Your task to perform on an android device: Open privacy settings Image 0: 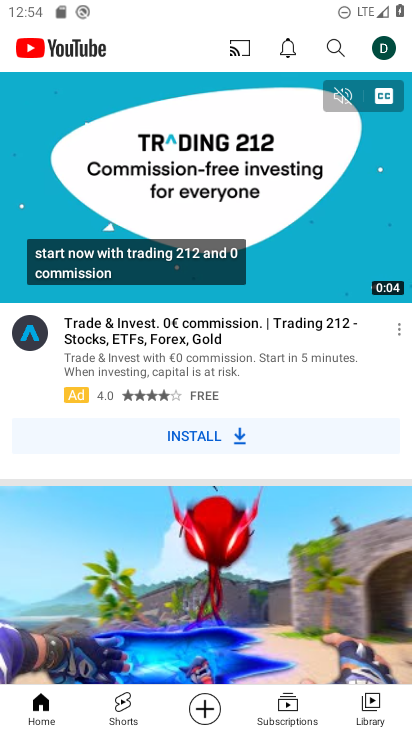
Step 0: press home button
Your task to perform on an android device: Open privacy settings Image 1: 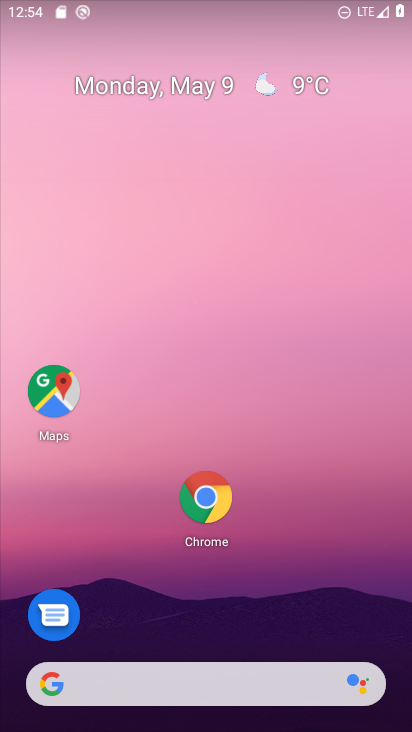
Step 1: drag from (292, 552) to (352, 36)
Your task to perform on an android device: Open privacy settings Image 2: 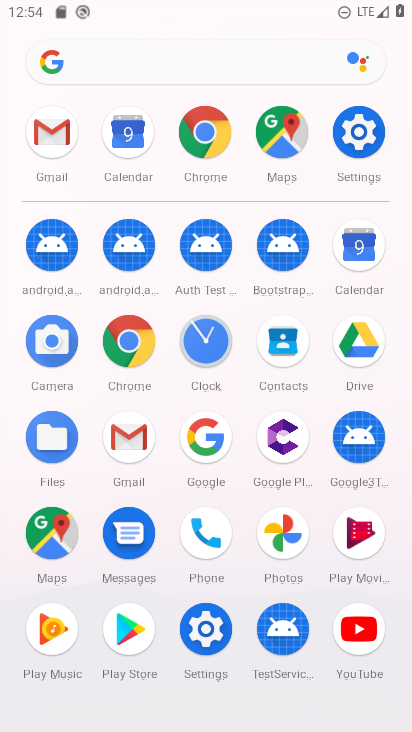
Step 2: click (373, 149)
Your task to perform on an android device: Open privacy settings Image 3: 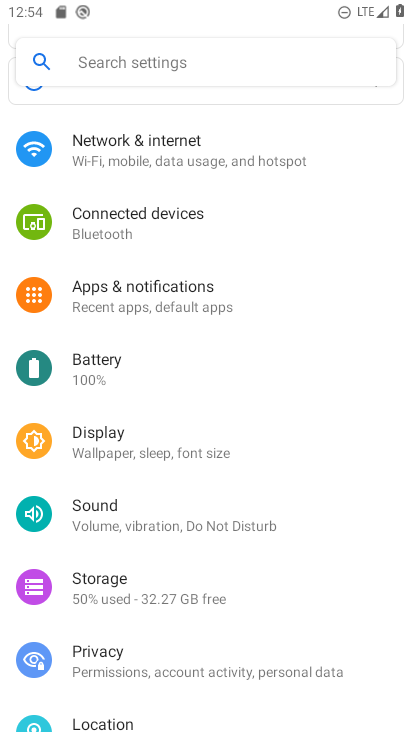
Step 3: drag from (153, 645) to (214, 269)
Your task to perform on an android device: Open privacy settings Image 4: 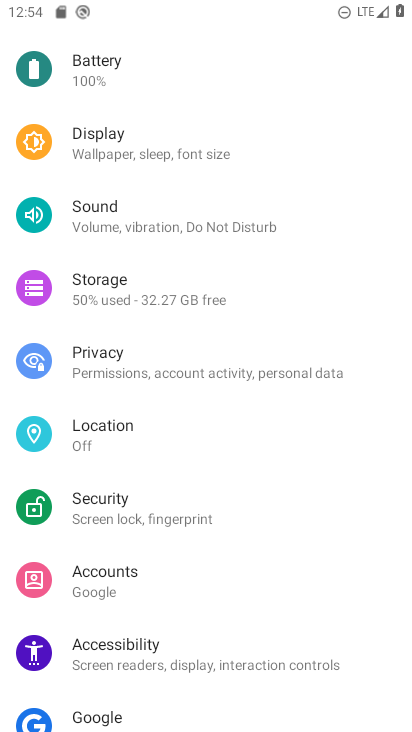
Step 4: click (167, 368)
Your task to perform on an android device: Open privacy settings Image 5: 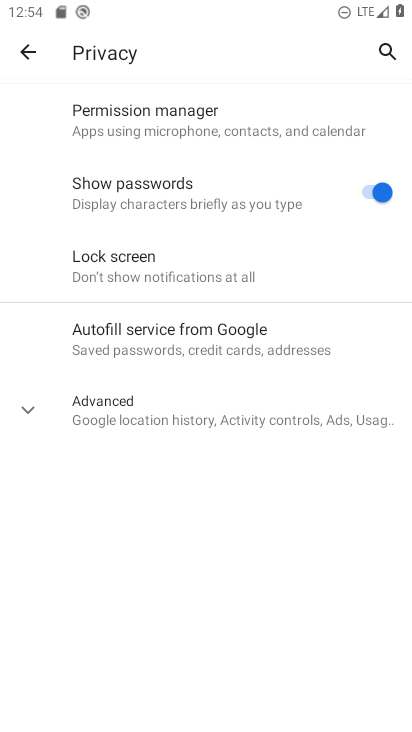
Step 5: task complete